Your task to perform on an android device: Open battery settings Image 0: 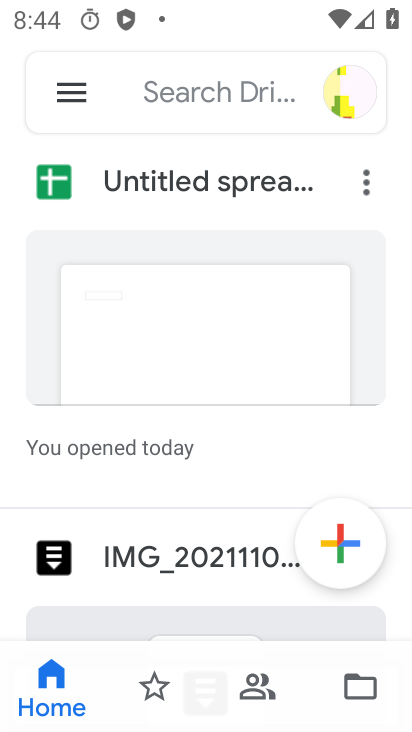
Step 0: press home button
Your task to perform on an android device: Open battery settings Image 1: 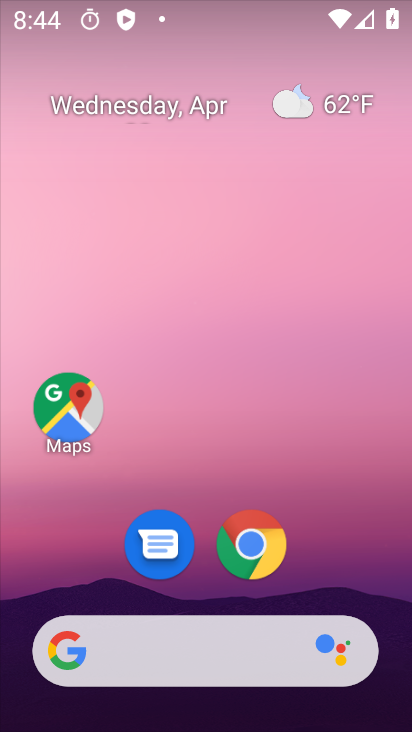
Step 1: drag from (349, 532) to (55, 65)
Your task to perform on an android device: Open battery settings Image 2: 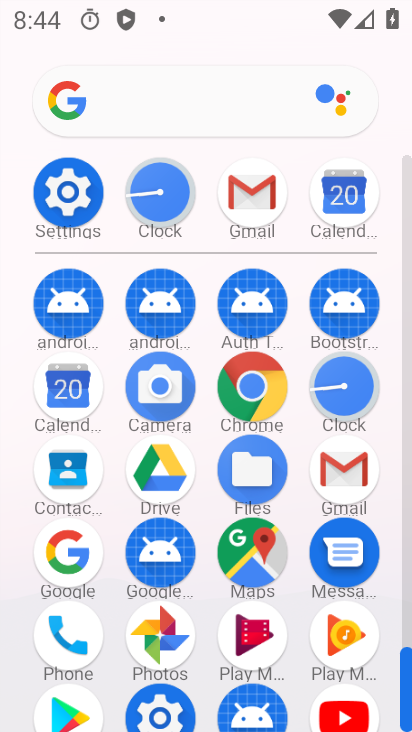
Step 2: click (73, 189)
Your task to perform on an android device: Open battery settings Image 3: 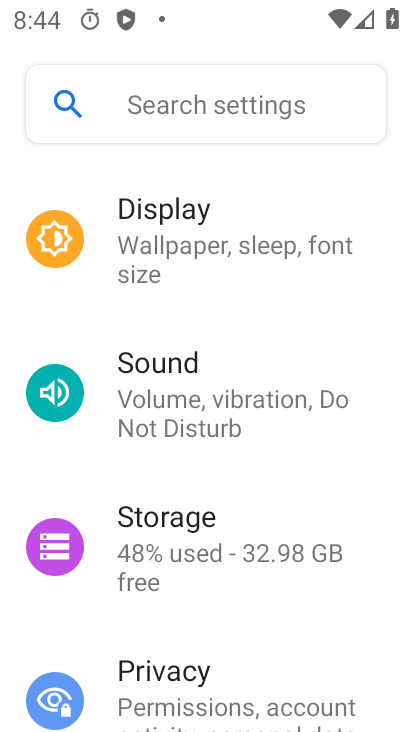
Step 3: drag from (217, 343) to (211, 650)
Your task to perform on an android device: Open battery settings Image 4: 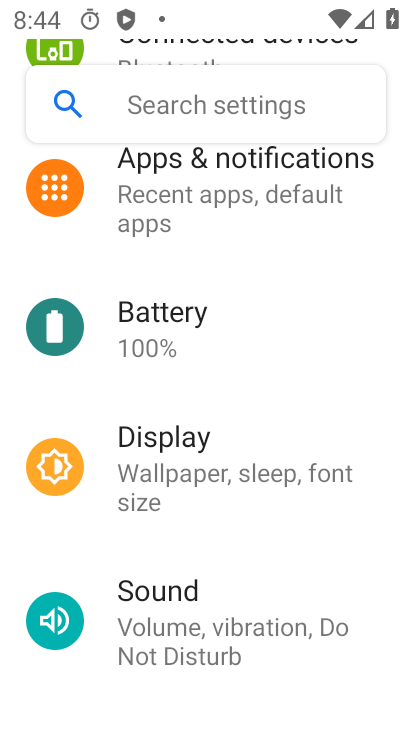
Step 4: click (161, 338)
Your task to perform on an android device: Open battery settings Image 5: 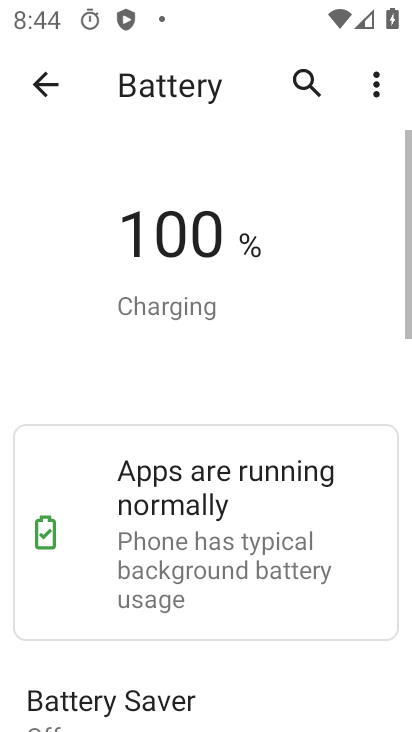
Step 5: task complete